Your task to perform on an android device: What's the weather? Image 0: 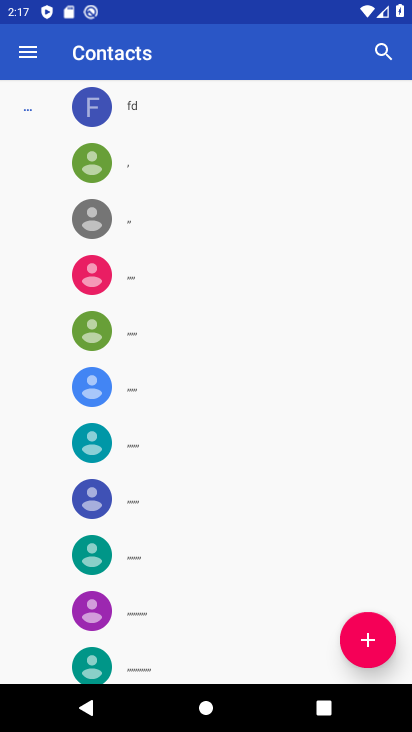
Step 0: press back button
Your task to perform on an android device: What's the weather? Image 1: 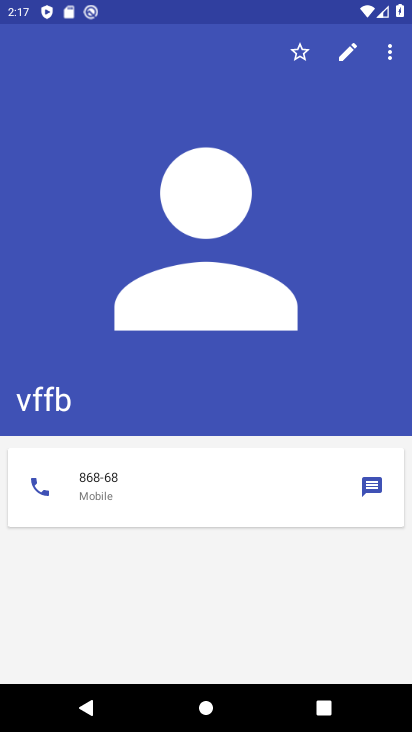
Step 1: press back button
Your task to perform on an android device: What's the weather? Image 2: 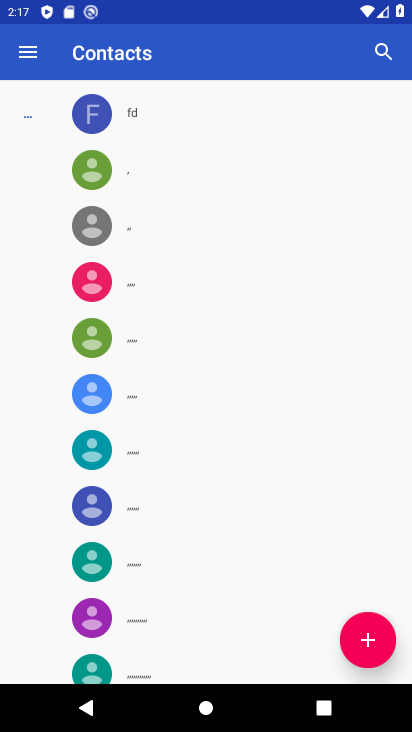
Step 2: press back button
Your task to perform on an android device: What's the weather? Image 3: 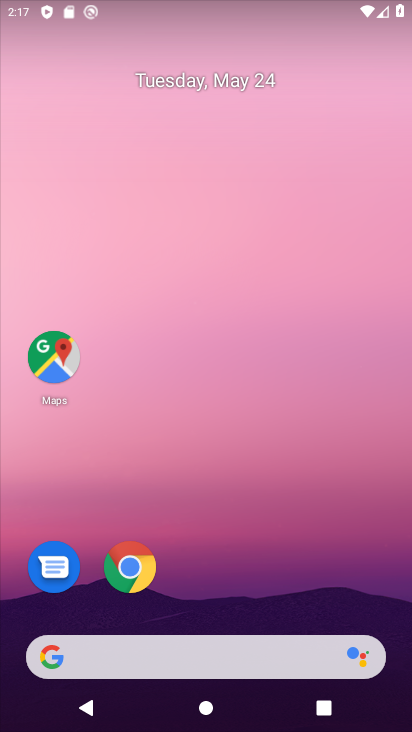
Step 3: click (196, 657)
Your task to perform on an android device: What's the weather? Image 4: 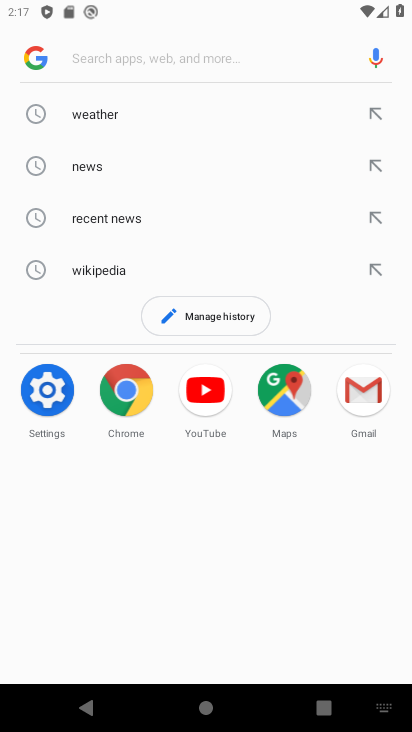
Step 4: click (86, 115)
Your task to perform on an android device: What's the weather? Image 5: 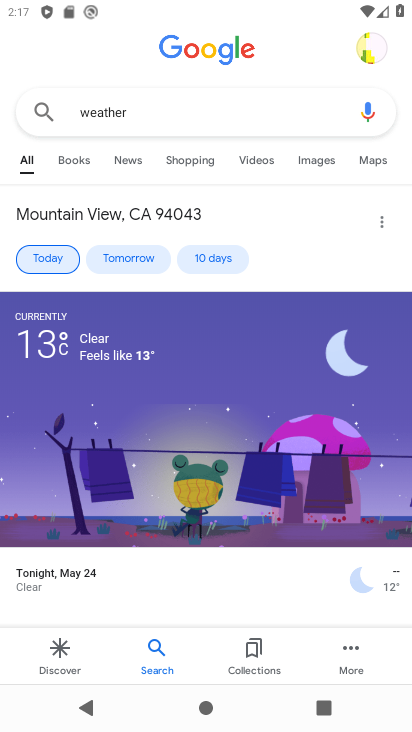
Step 5: task complete